Your task to perform on an android device: What's the weather? Image 0: 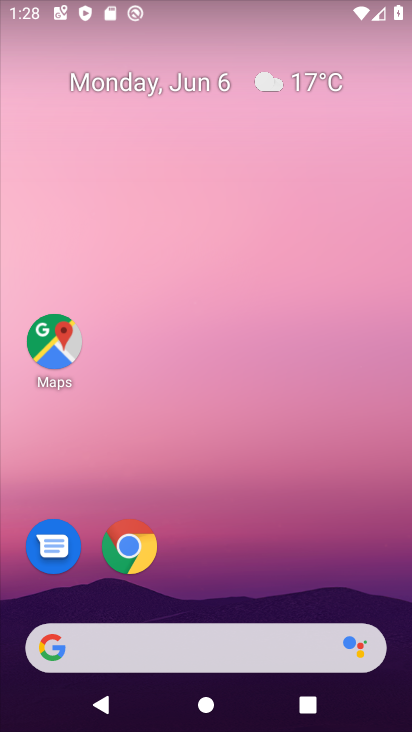
Step 0: drag from (244, 604) to (313, 116)
Your task to perform on an android device: What's the weather? Image 1: 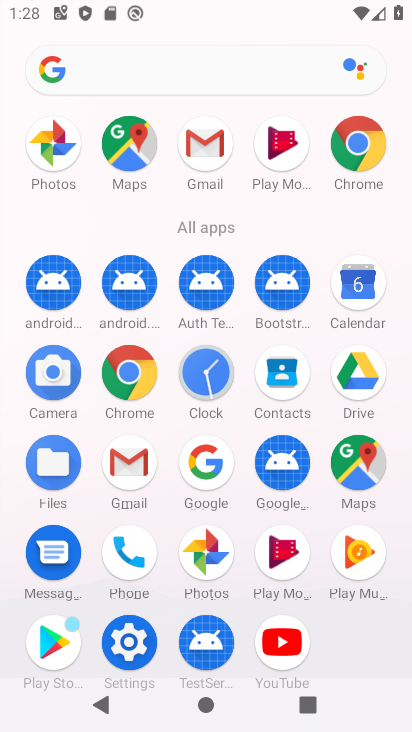
Step 1: click (158, 78)
Your task to perform on an android device: What's the weather? Image 2: 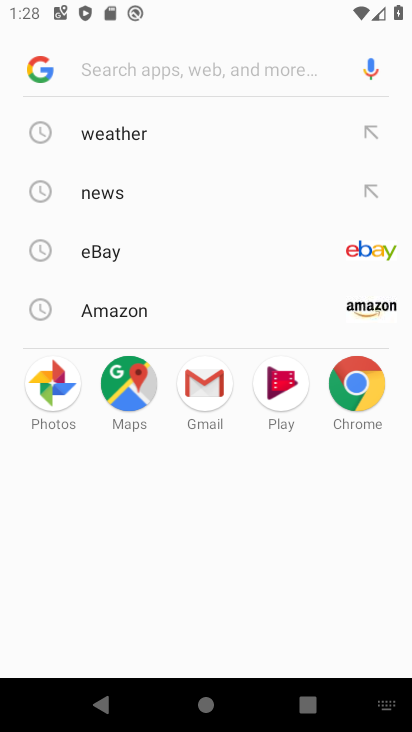
Step 2: click (115, 138)
Your task to perform on an android device: What's the weather? Image 3: 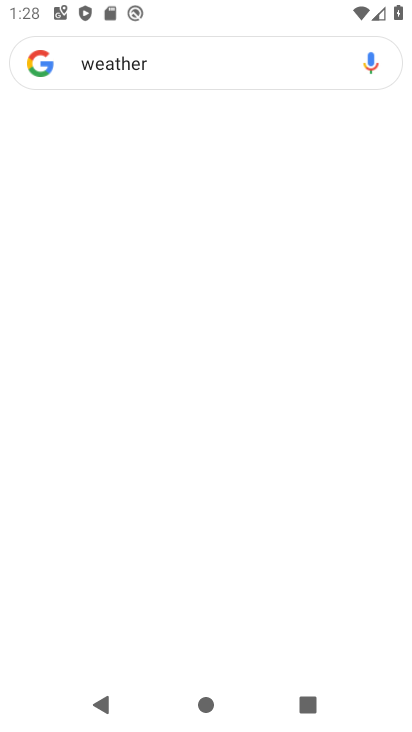
Step 3: task complete